Your task to perform on an android device: delete location history Image 0: 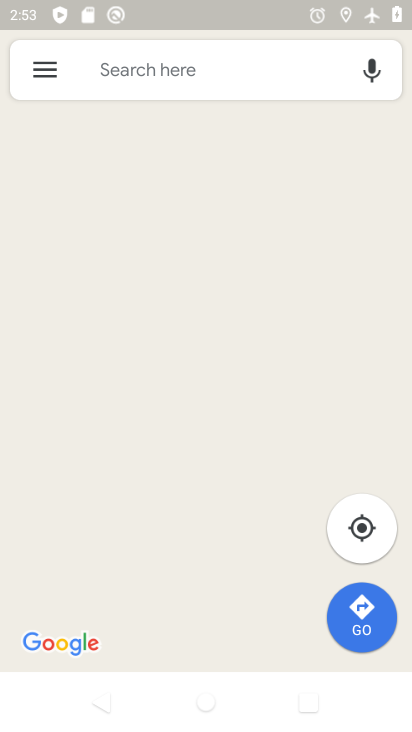
Step 0: click (26, 65)
Your task to perform on an android device: delete location history Image 1: 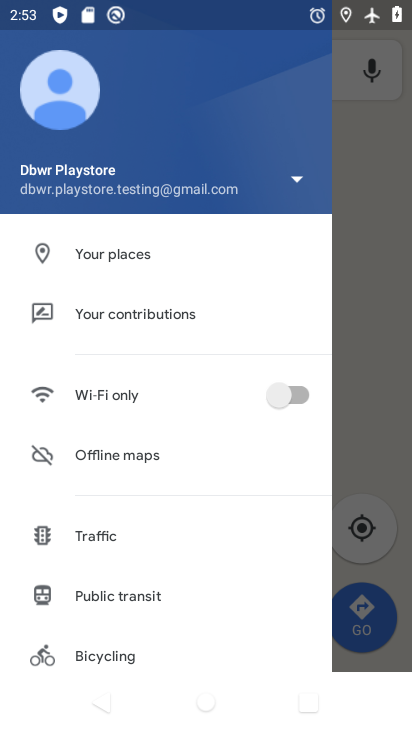
Step 1: click (371, 213)
Your task to perform on an android device: delete location history Image 2: 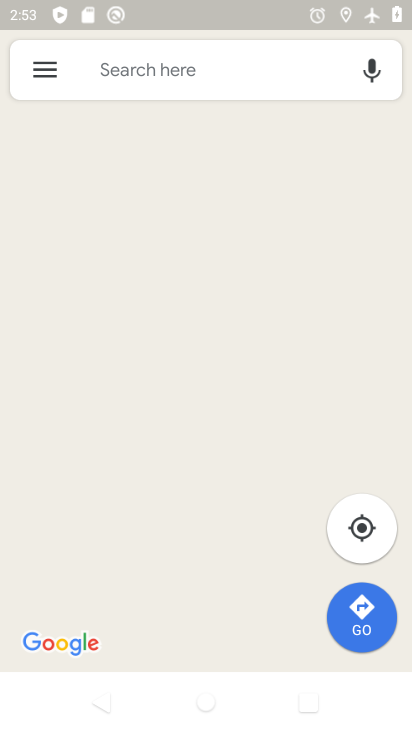
Step 2: click (22, 63)
Your task to perform on an android device: delete location history Image 3: 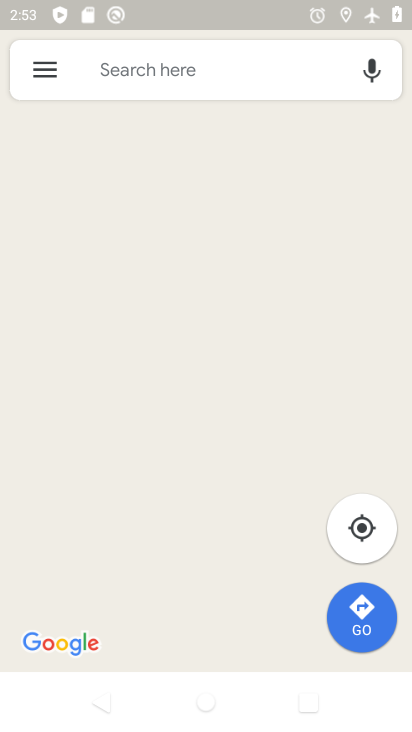
Step 3: click (42, 75)
Your task to perform on an android device: delete location history Image 4: 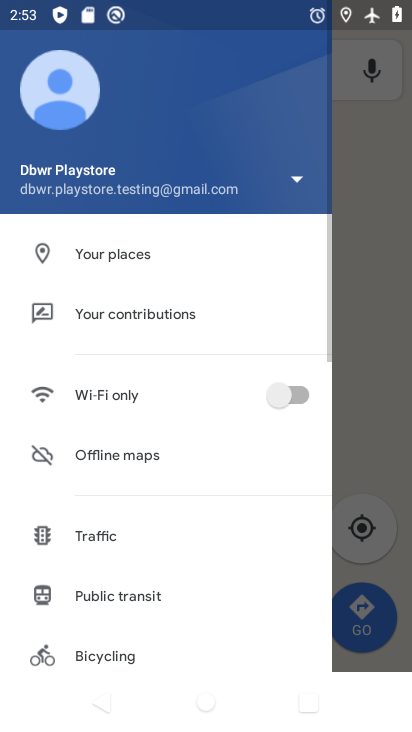
Step 4: drag from (156, 298) to (156, 601)
Your task to perform on an android device: delete location history Image 5: 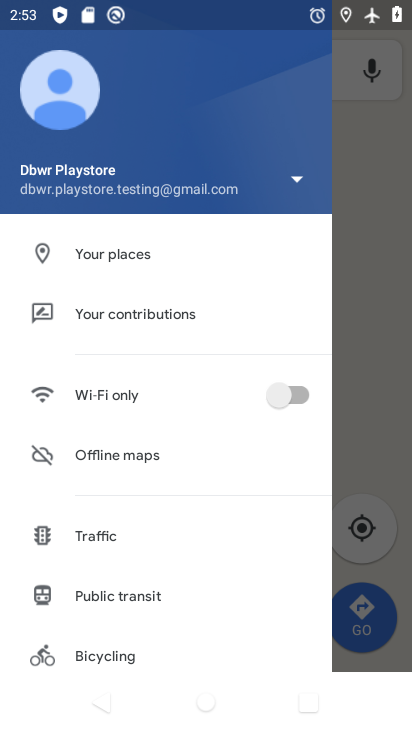
Step 5: drag from (152, 641) to (170, 673)
Your task to perform on an android device: delete location history Image 6: 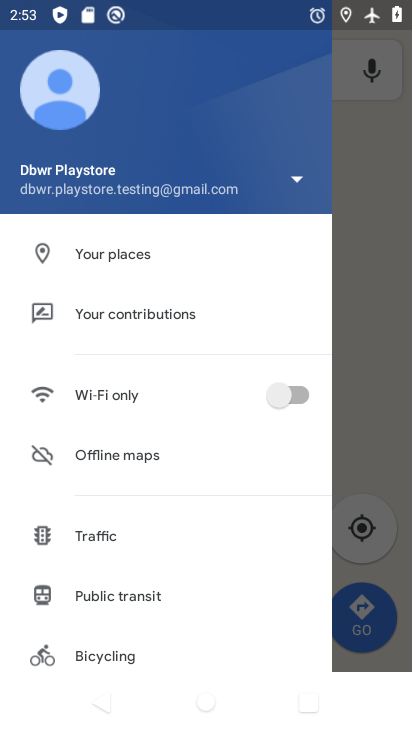
Step 6: click (374, 346)
Your task to perform on an android device: delete location history Image 7: 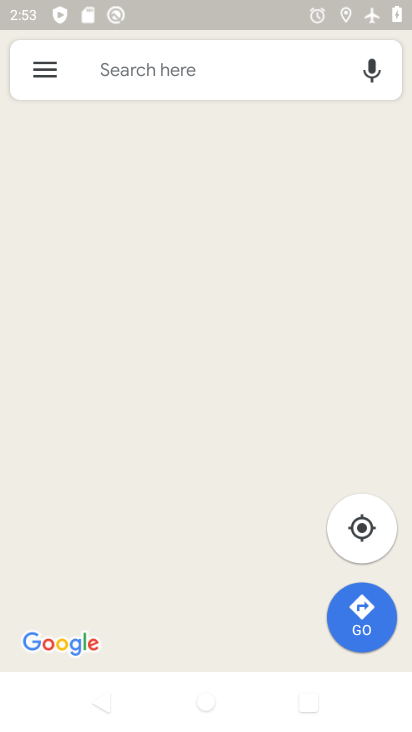
Step 7: click (31, 57)
Your task to perform on an android device: delete location history Image 8: 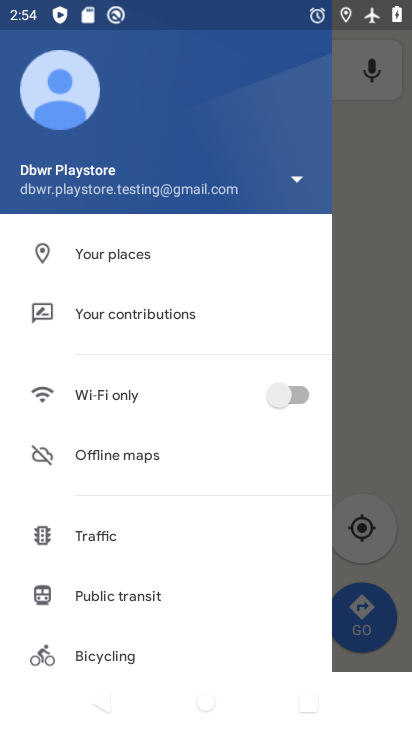
Step 8: task complete